Your task to perform on an android device: change timer sound Image 0: 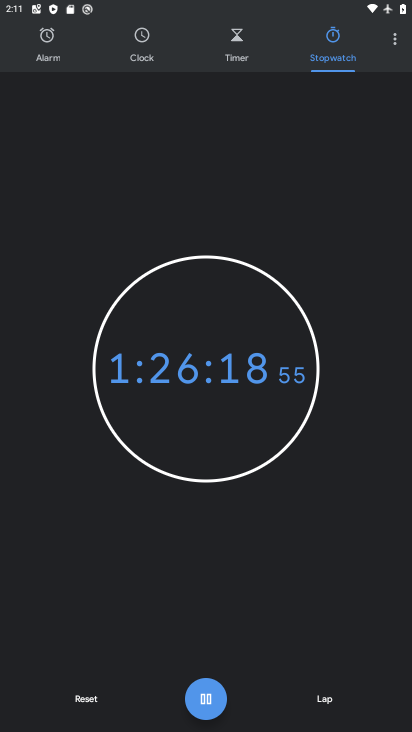
Step 0: click (389, 42)
Your task to perform on an android device: change timer sound Image 1: 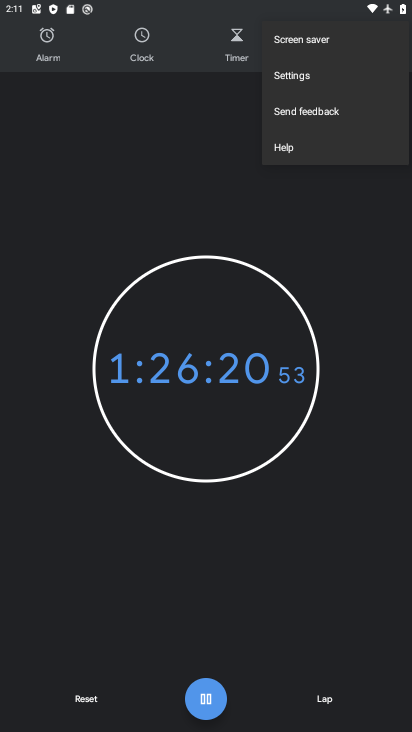
Step 1: click (296, 73)
Your task to perform on an android device: change timer sound Image 2: 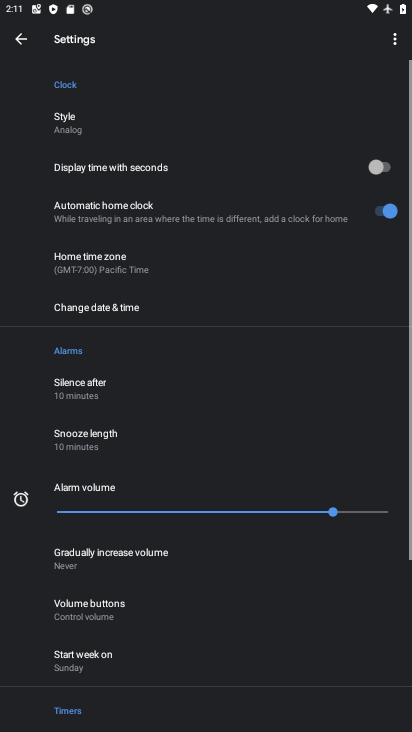
Step 2: drag from (172, 671) to (218, 300)
Your task to perform on an android device: change timer sound Image 3: 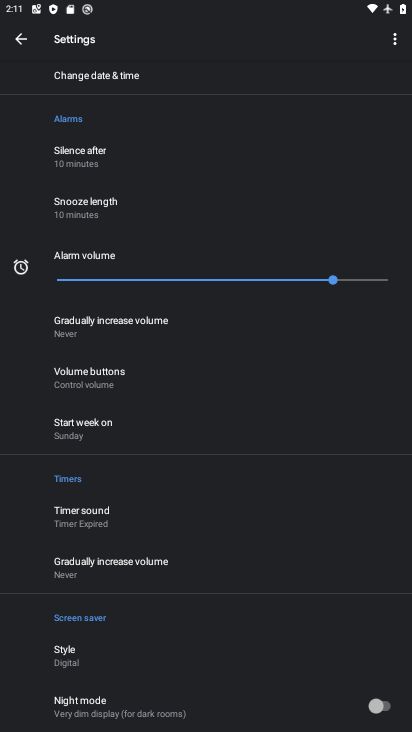
Step 3: click (124, 517)
Your task to perform on an android device: change timer sound Image 4: 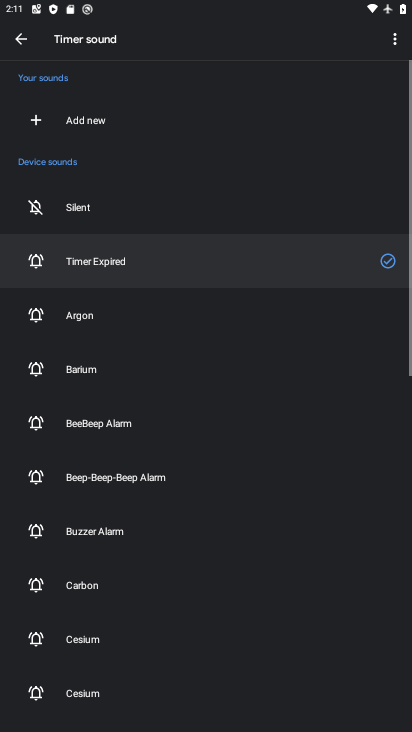
Step 4: click (138, 311)
Your task to perform on an android device: change timer sound Image 5: 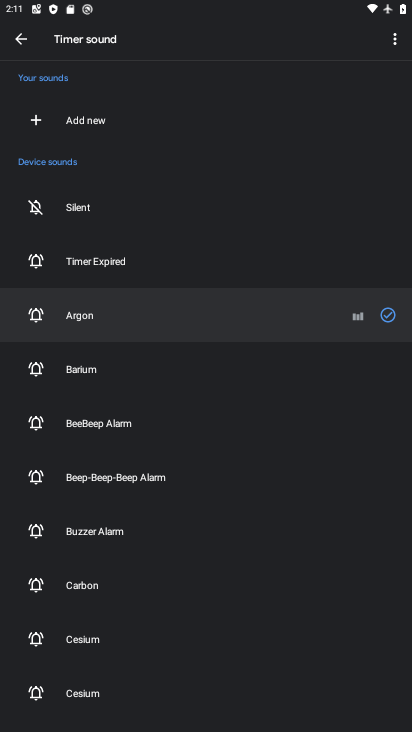
Step 5: task complete